Your task to perform on an android device: Show me popular games on the Play Store Image 0: 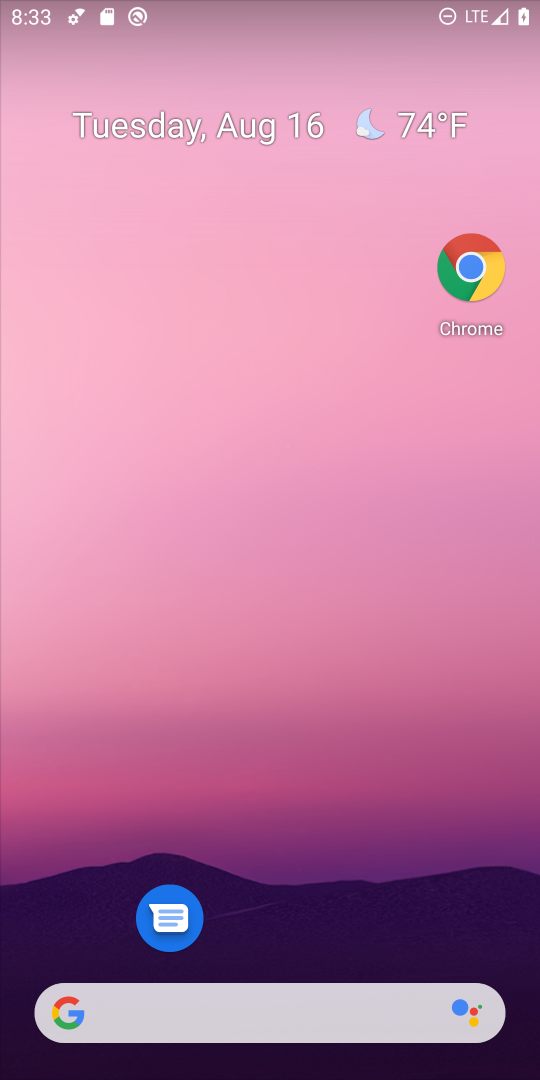
Step 0: drag from (285, 958) to (275, 43)
Your task to perform on an android device: Show me popular games on the Play Store Image 1: 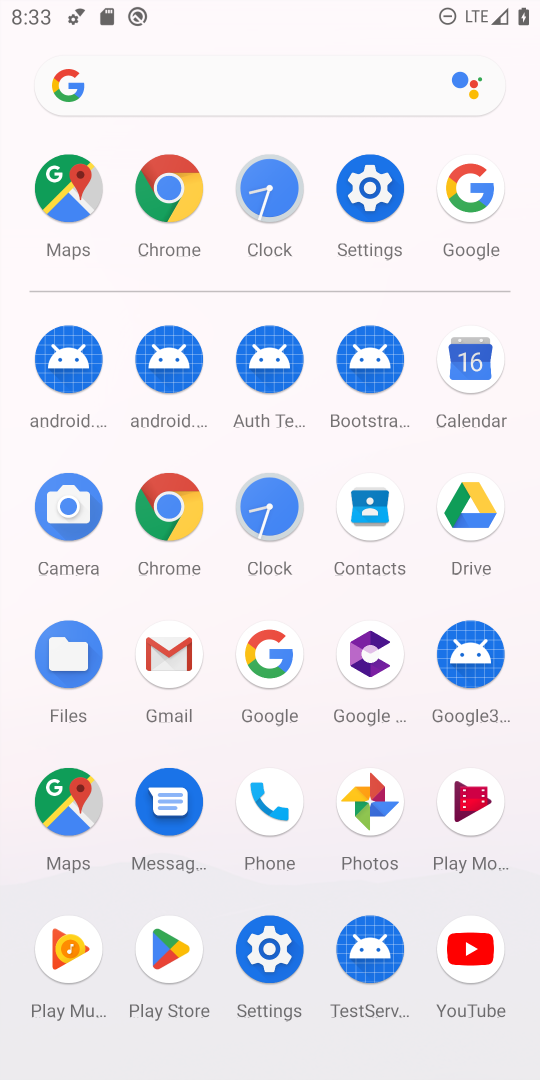
Step 1: click (196, 947)
Your task to perform on an android device: Show me popular games on the Play Store Image 2: 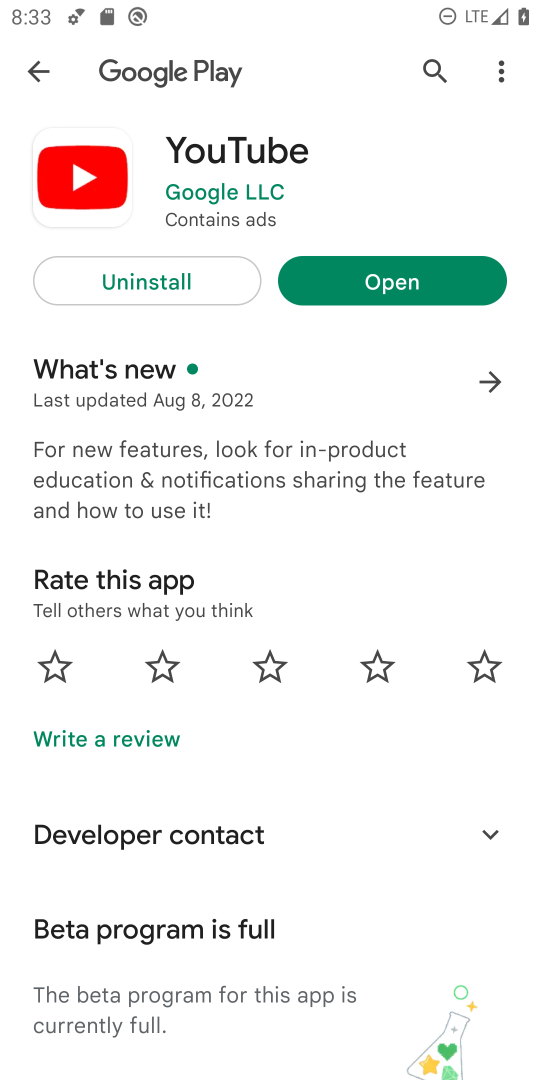
Step 2: click (43, 66)
Your task to perform on an android device: Show me popular games on the Play Store Image 3: 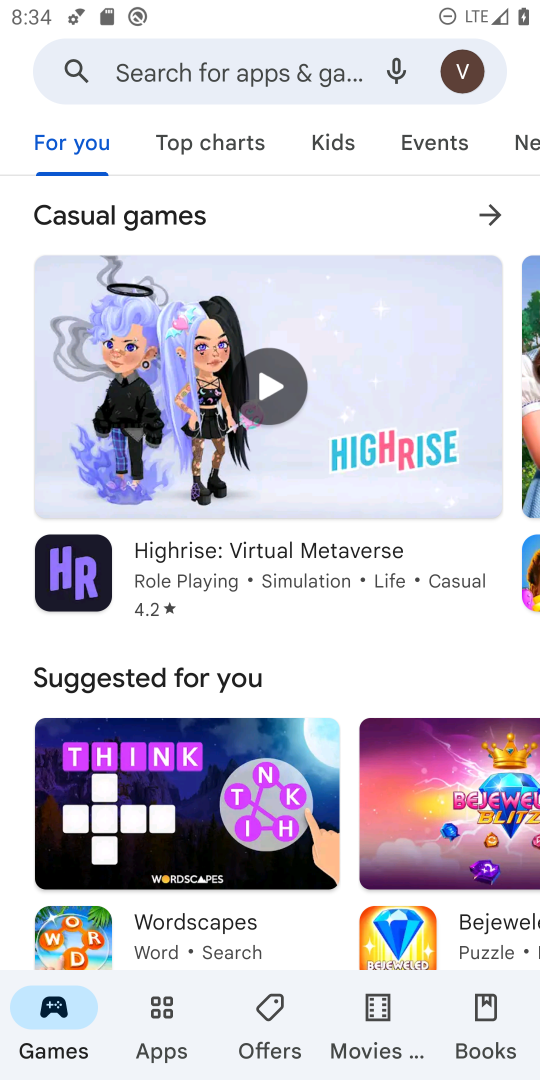
Step 3: task complete